Your task to perform on an android device: turn off translation in the chrome app Image 0: 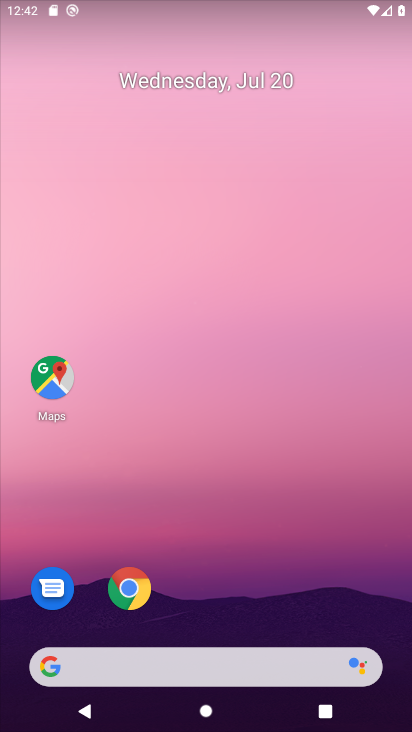
Step 0: click (126, 600)
Your task to perform on an android device: turn off translation in the chrome app Image 1: 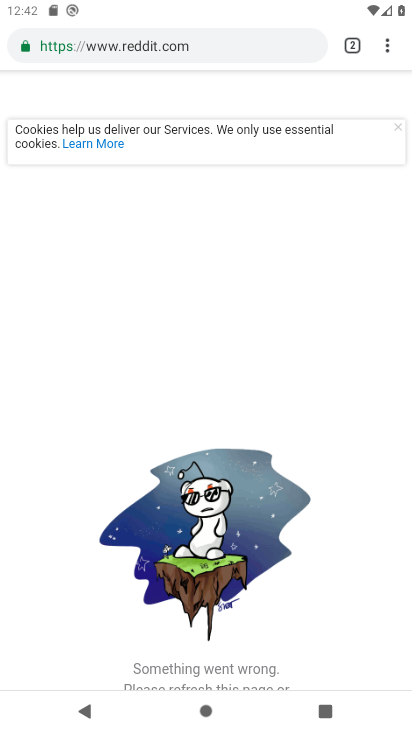
Step 1: click (392, 49)
Your task to perform on an android device: turn off translation in the chrome app Image 2: 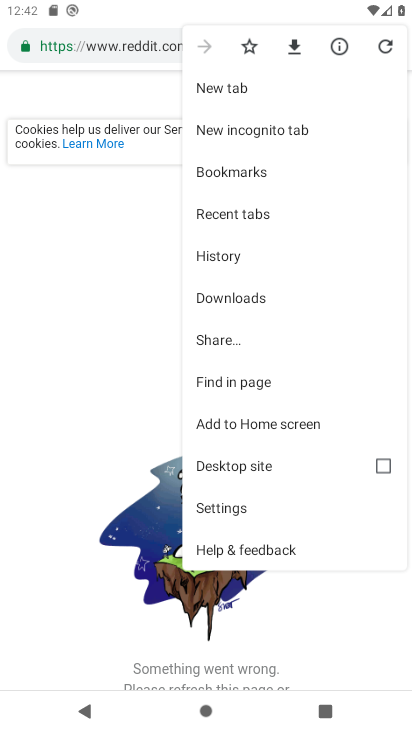
Step 2: click (235, 499)
Your task to perform on an android device: turn off translation in the chrome app Image 3: 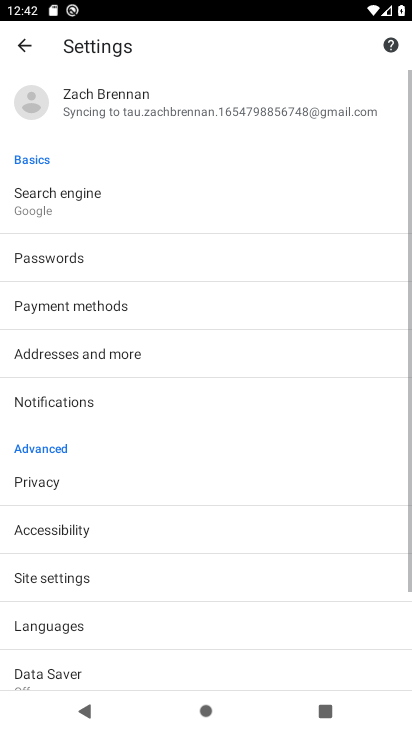
Step 3: click (108, 623)
Your task to perform on an android device: turn off translation in the chrome app Image 4: 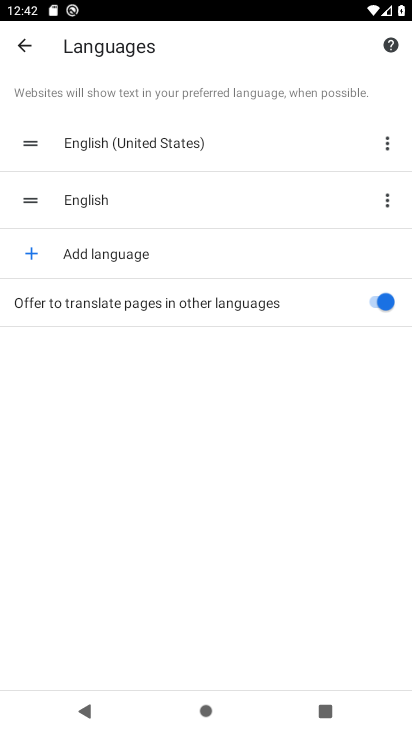
Step 4: click (376, 304)
Your task to perform on an android device: turn off translation in the chrome app Image 5: 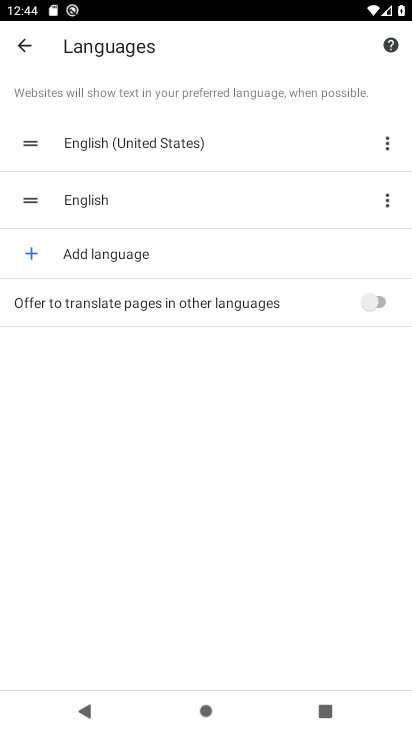
Step 5: task complete